Your task to perform on an android device: Search for sushi restaurants on Maps Image 0: 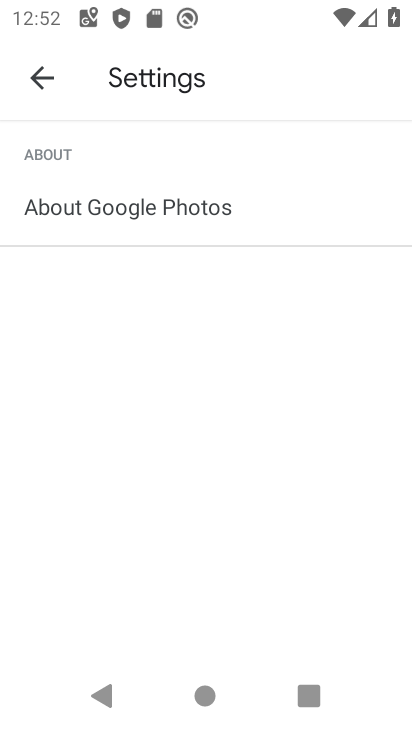
Step 0: press home button
Your task to perform on an android device: Search for sushi restaurants on Maps Image 1: 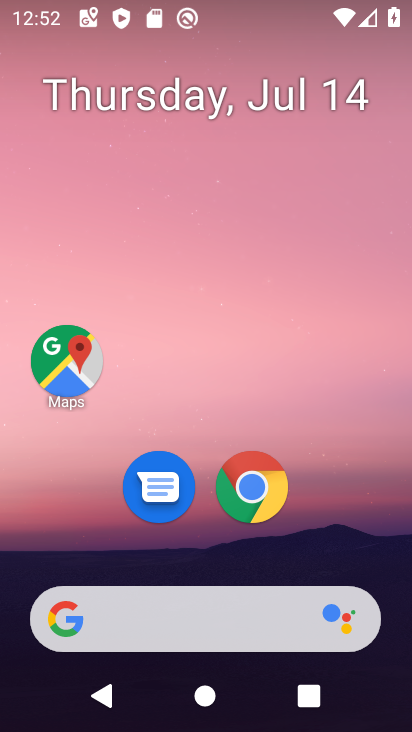
Step 1: drag from (226, 659) to (271, 182)
Your task to perform on an android device: Search for sushi restaurants on Maps Image 2: 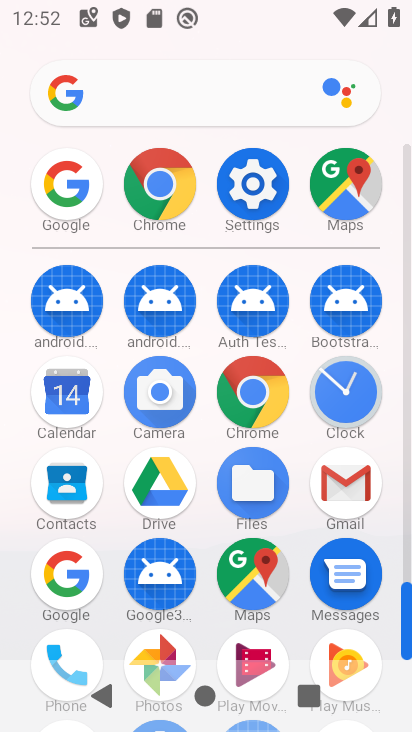
Step 2: click (260, 569)
Your task to perform on an android device: Search for sushi restaurants on Maps Image 3: 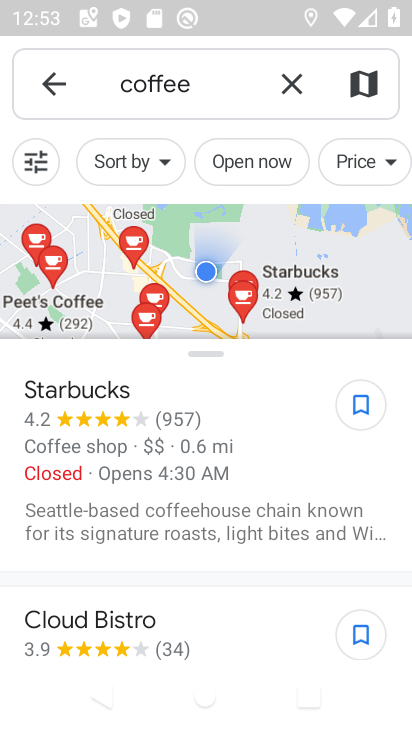
Step 3: click (285, 83)
Your task to perform on an android device: Search for sushi restaurants on Maps Image 4: 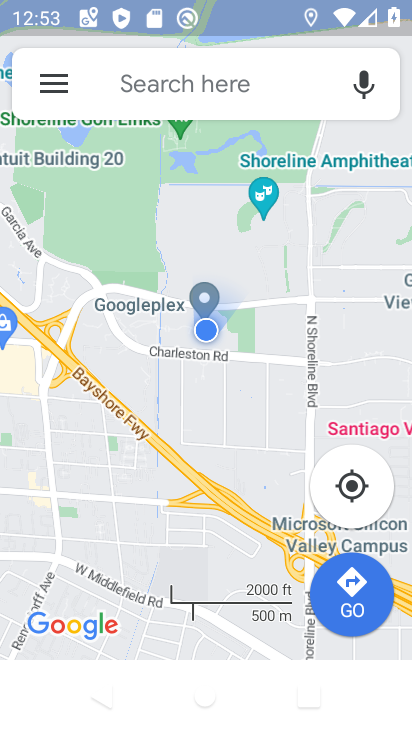
Step 4: click (228, 90)
Your task to perform on an android device: Search for sushi restaurants on Maps Image 5: 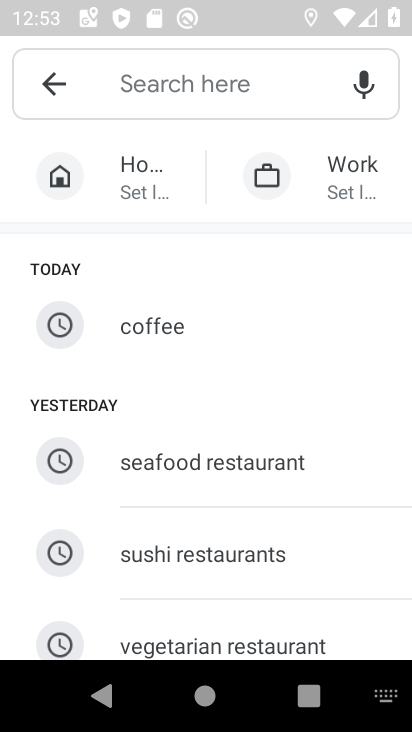
Step 5: click (228, 90)
Your task to perform on an android device: Search for sushi restaurants on Maps Image 6: 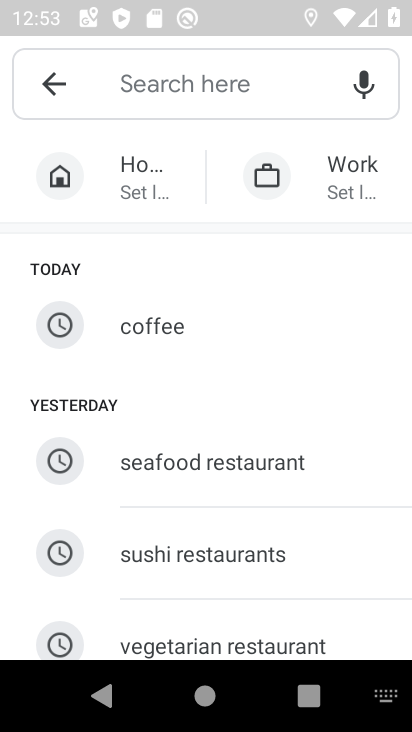
Step 6: click (197, 560)
Your task to perform on an android device: Search for sushi restaurants on Maps Image 7: 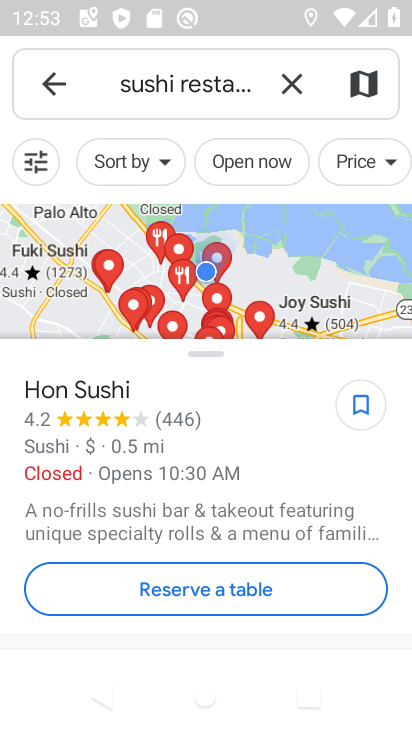
Step 7: task complete